Your task to perform on an android device: Go to network settings Image 0: 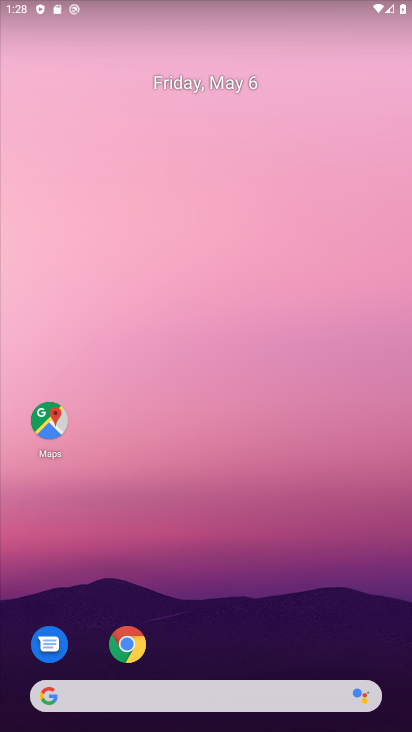
Step 0: drag from (239, 658) to (253, 126)
Your task to perform on an android device: Go to network settings Image 1: 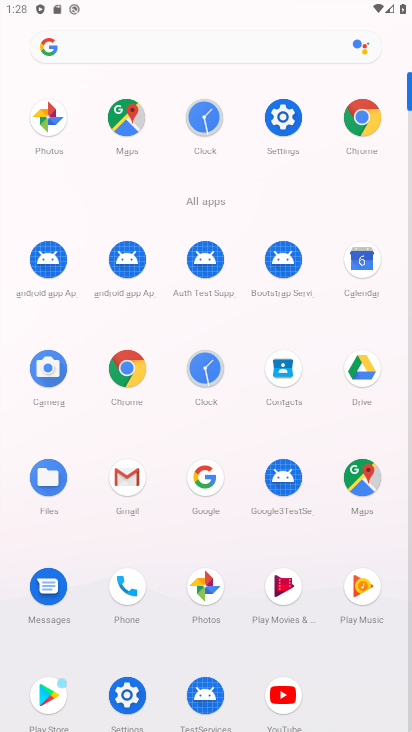
Step 1: click (284, 108)
Your task to perform on an android device: Go to network settings Image 2: 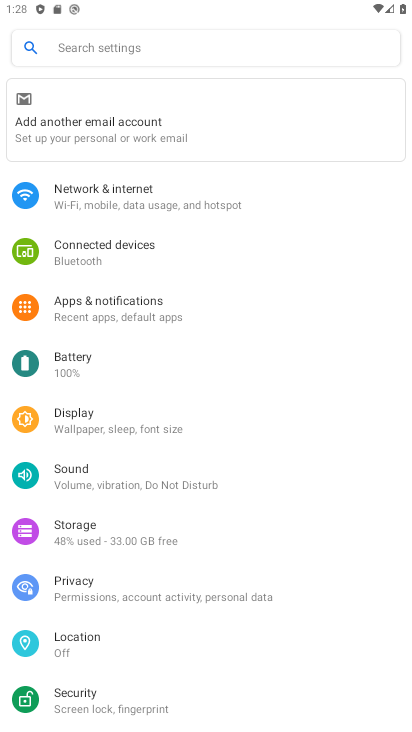
Step 2: click (100, 194)
Your task to perform on an android device: Go to network settings Image 3: 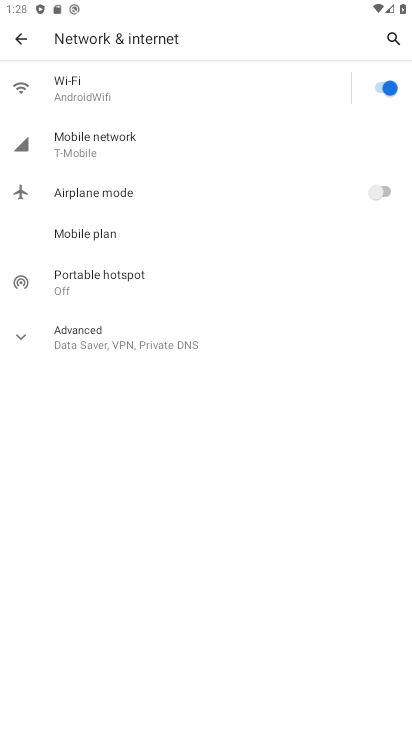
Step 3: task complete